Your task to perform on an android device: move a message to another label in the gmail app Image 0: 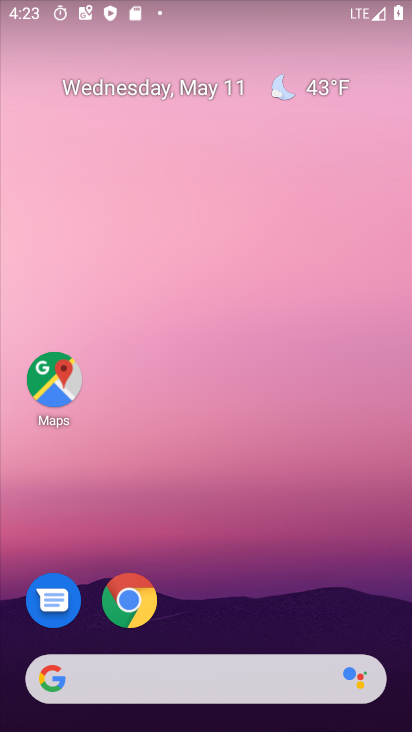
Step 0: drag from (351, 553) to (327, 18)
Your task to perform on an android device: move a message to another label in the gmail app Image 1: 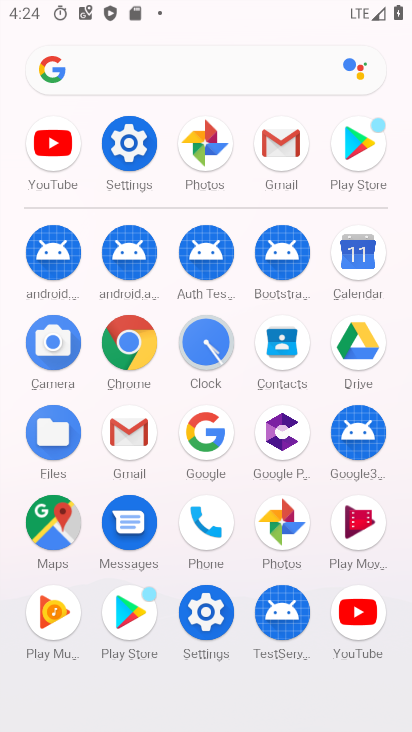
Step 1: click (274, 147)
Your task to perform on an android device: move a message to another label in the gmail app Image 2: 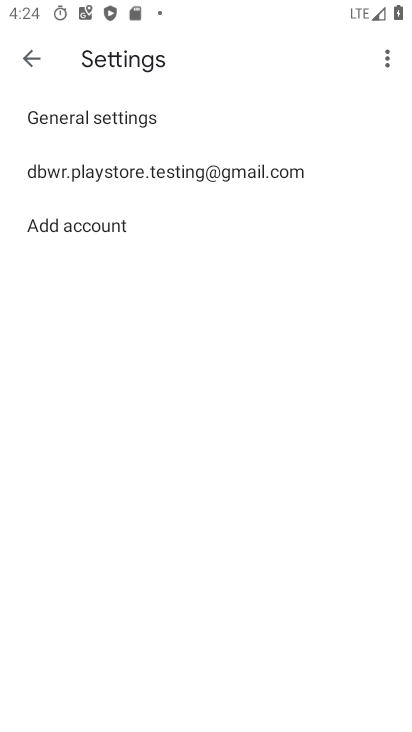
Step 2: click (38, 63)
Your task to perform on an android device: move a message to another label in the gmail app Image 3: 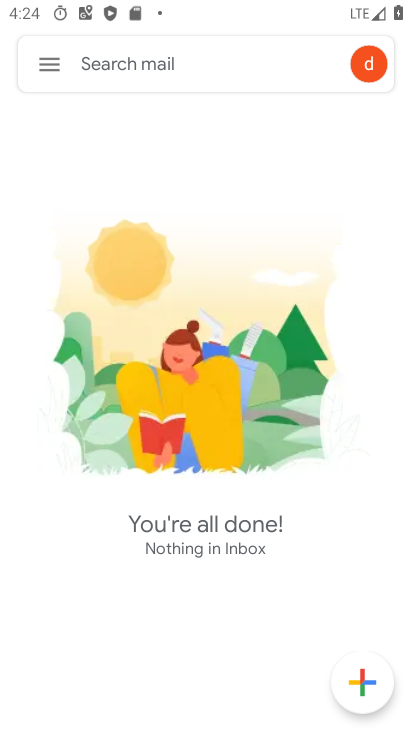
Step 3: click (55, 70)
Your task to perform on an android device: move a message to another label in the gmail app Image 4: 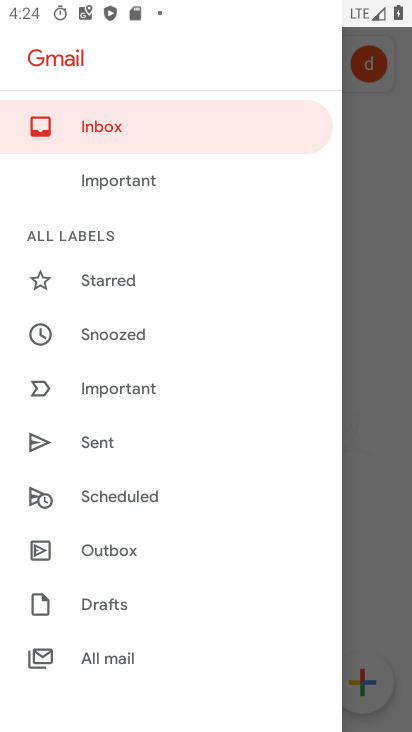
Step 4: click (124, 660)
Your task to perform on an android device: move a message to another label in the gmail app Image 5: 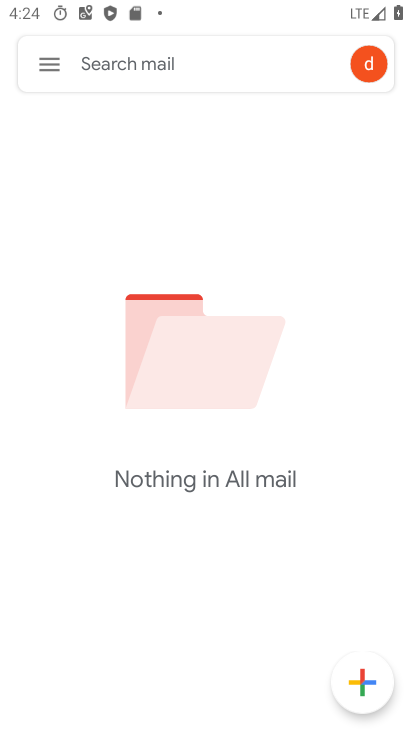
Step 5: task complete